Your task to perform on an android device: toggle notifications settings in the gmail app Image 0: 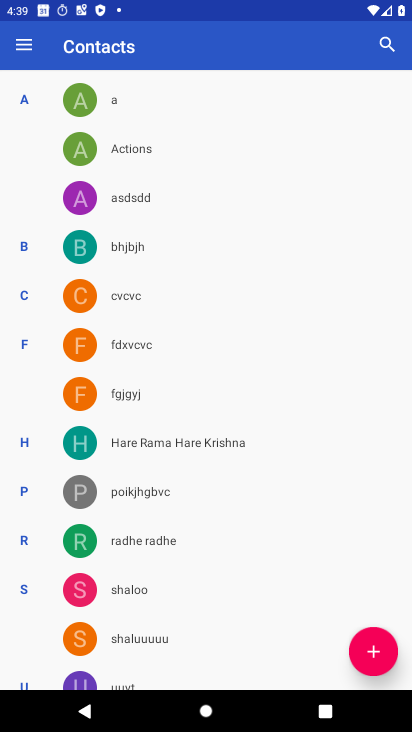
Step 0: press home button
Your task to perform on an android device: toggle notifications settings in the gmail app Image 1: 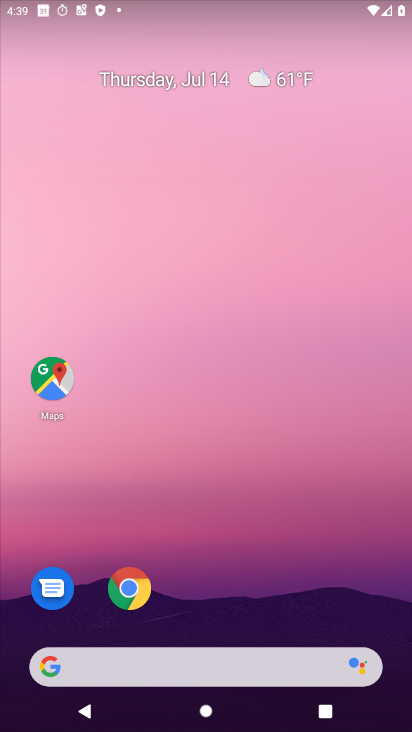
Step 1: drag from (229, 667) to (250, 14)
Your task to perform on an android device: toggle notifications settings in the gmail app Image 2: 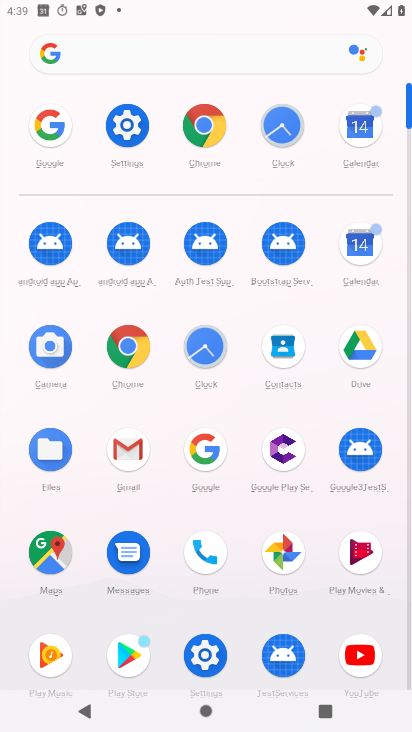
Step 2: click (124, 448)
Your task to perform on an android device: toggle notifications settings in the gmail app Image 3: 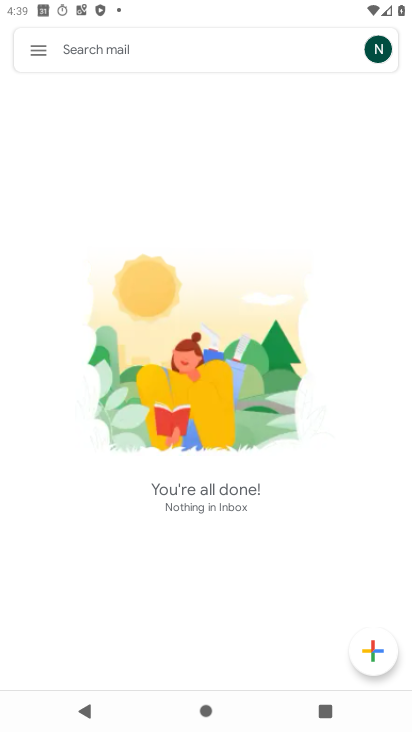
Step 3: click (37, 49)
Your task to perform on an android device: toggle notifications settings in the gmail app Image 4: 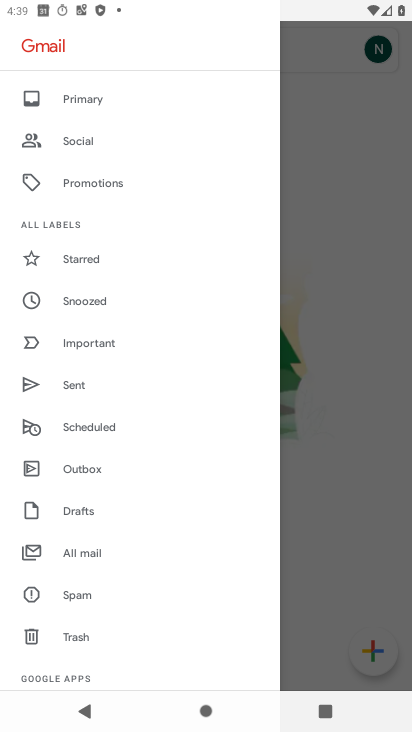
Step 4: drag from (73, 533) to (111, 395)
Your task to perform on an android device: toggle notifications settings in the gmail app Image 5: 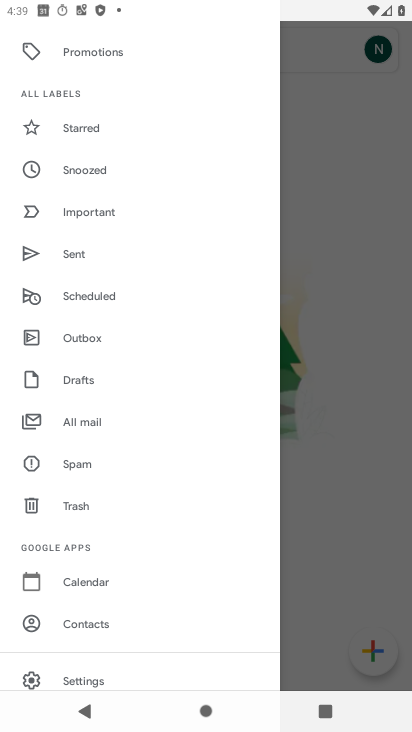
Step 5: drag from (72, 523) to (127, 434)
Your task to perform on an android device: toggle notifications settings in the gmail app Image 6: 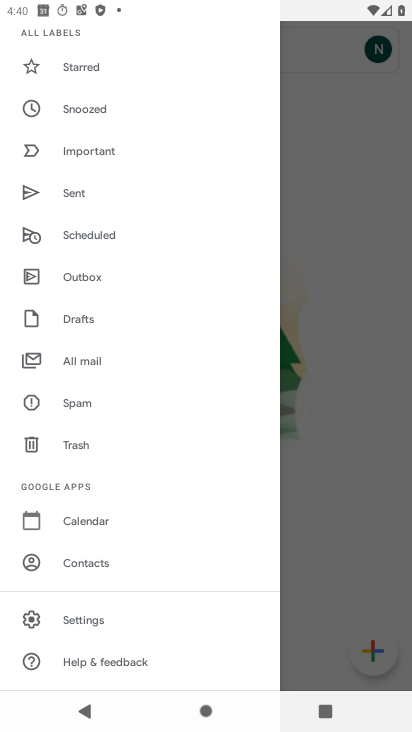
Step 6: click (97, 616)
Your task to perform on an android device: toggle notifications settings in the gmail app Image 7: 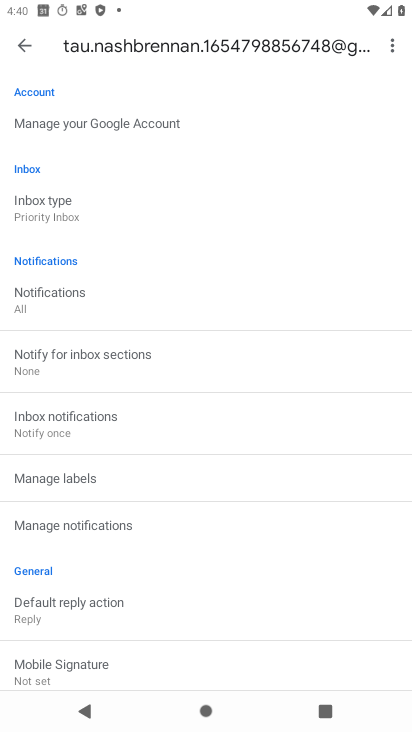
Step 7: click (99, 520)
Your task to perform on an android device: toggle notifications settings in the gmail app Image 8: 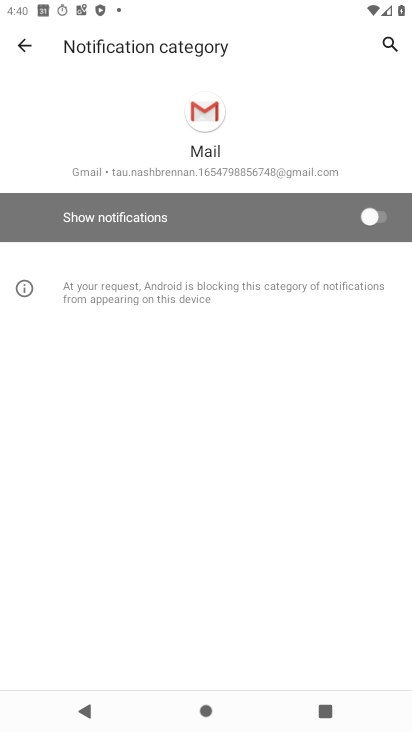
Step 8: click (369, 213)
Your task to perform on an android device: toggle notifications settings in the gmail app Image 9: 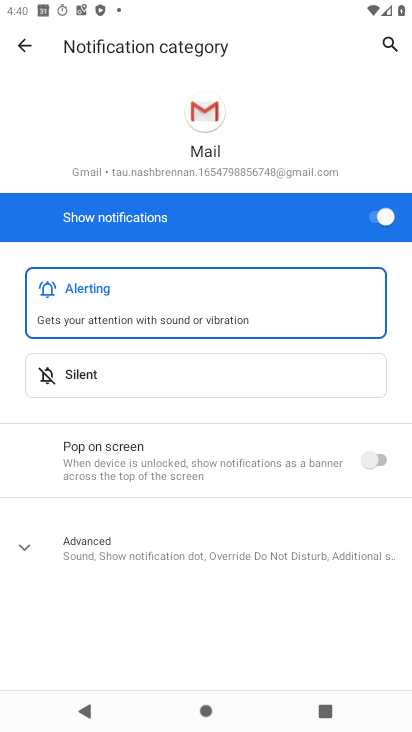
Step 9: task complete